Your task to perform on an android device: Do I have any events this weekend? Image 0: 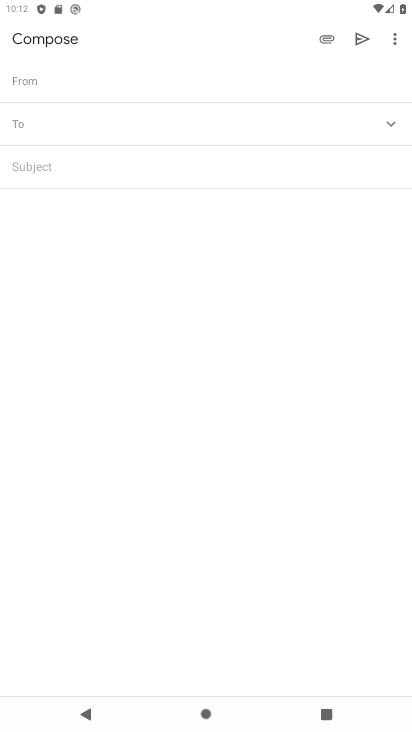
Step 0: drag from (205, 640) to (94, 73)
Your task to perform on an android device: Do I have any events this weekend? Image 1: 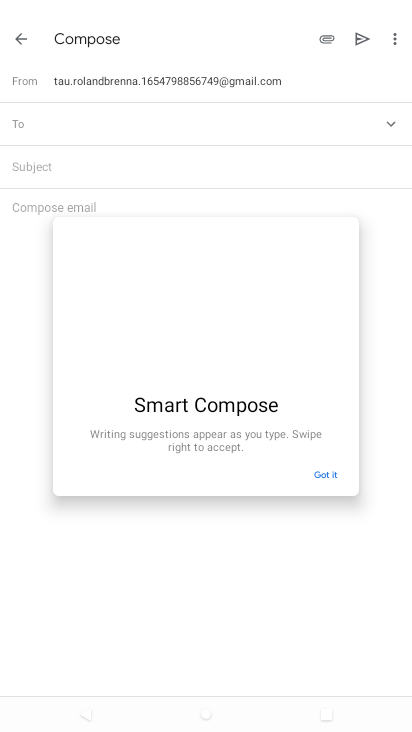
Step 1: press home button
Your task to perform on an android device: Do I have any events this weekend? Image 2: 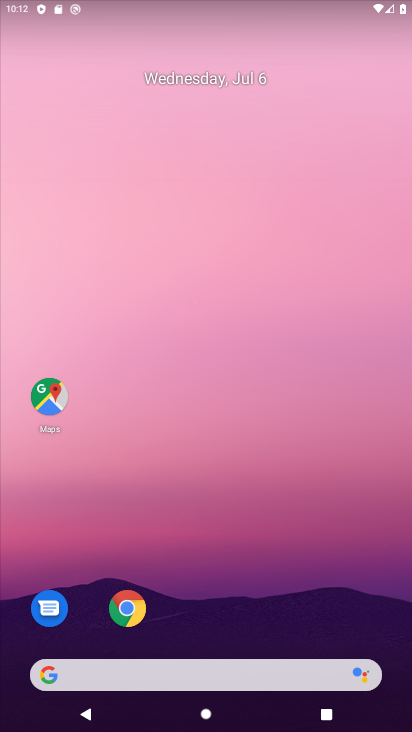
Step 2: drag from (224, 632) to (102, 125)
Your task to perform on an android device: Do I have any events this weekend? Image 3: 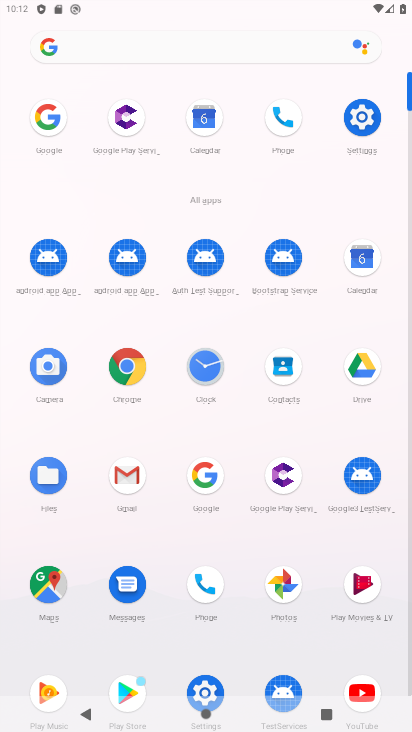
Step 3: click (361, 270)
Your task to perform on an android device: Do I have any events this weekend? Image 4: 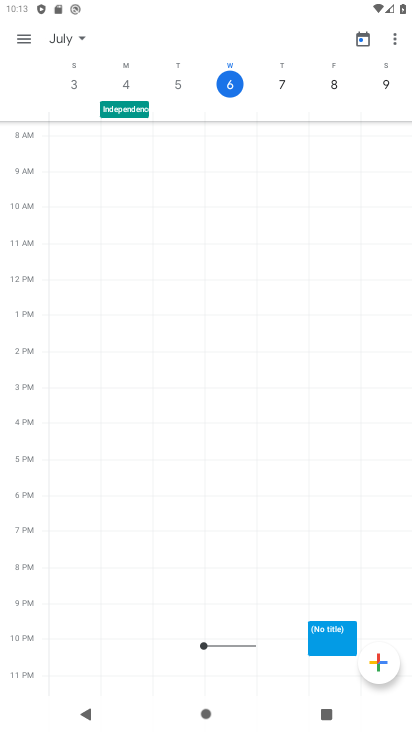
Step 4: task complete